Your task to perform on an android device: turn smart compose on in the gmail app Image 0: 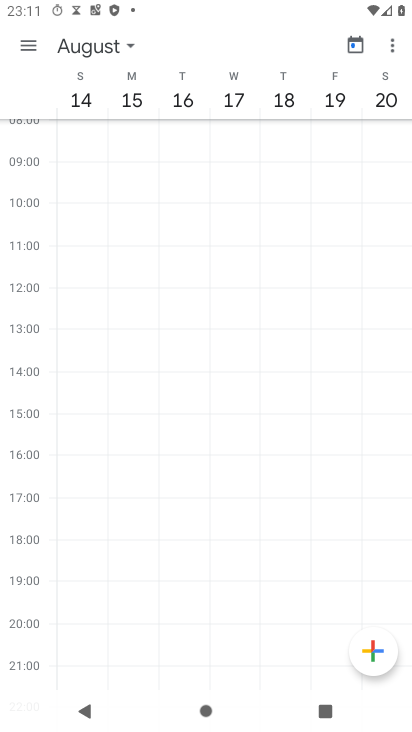
Step 0: press home button
Your task to perform on an android device: turn smart compose on in the gmail app Image 1: 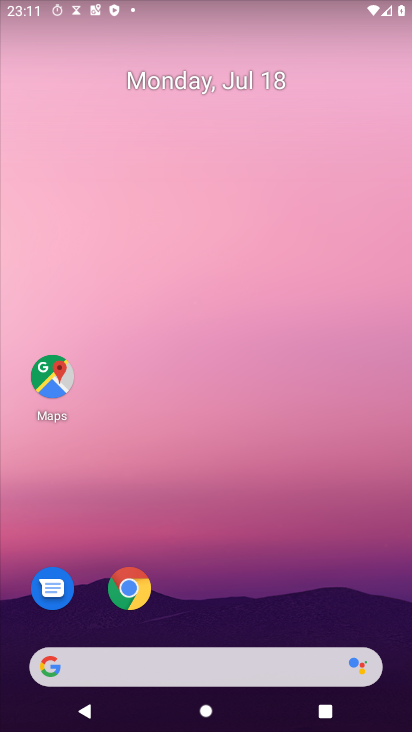
Step 1: drag from (193, 671) to (156, 138)
Your task to perform on an android device: turn smart compose on in the gmail app Image 2: 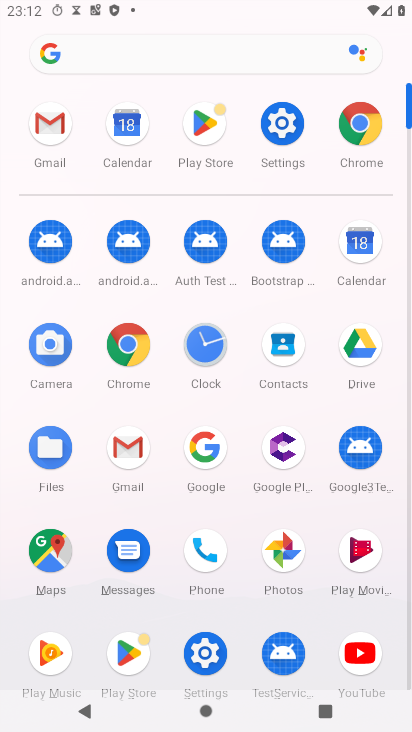
Step 2: click (49, 129)
Your task to perform on an android device: turn smart compose on in the gmail app Image 3: 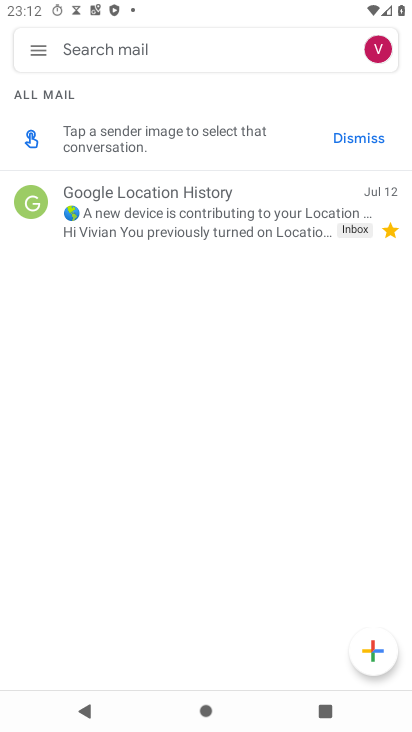
Step 3: click (34, 47)
Your task to perform on an android device: turn smart compose on in the gmail app Image 4: 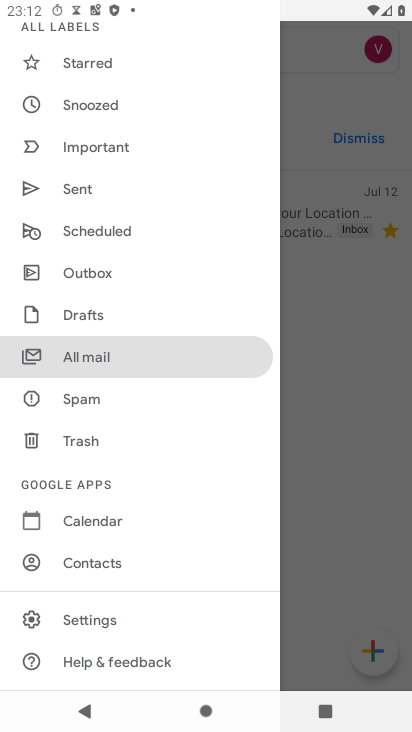
Step 4: click (101, 618)
Your task to perform on an android device: turn smart compose on in the gmail app Image 5: 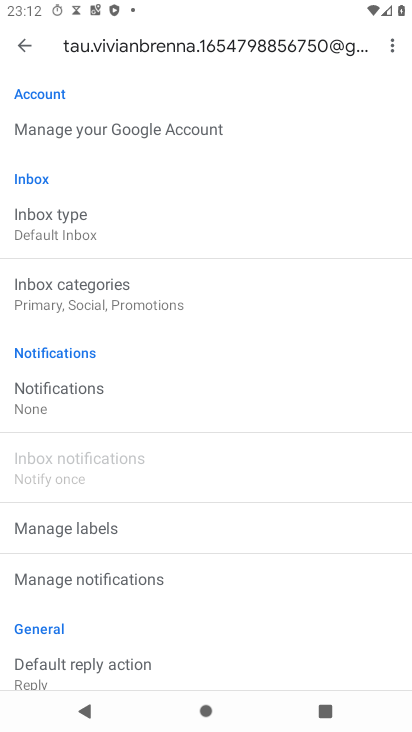
Step 5: task complete